Your task to perform on an android device: toggle sleep mode Image 0: 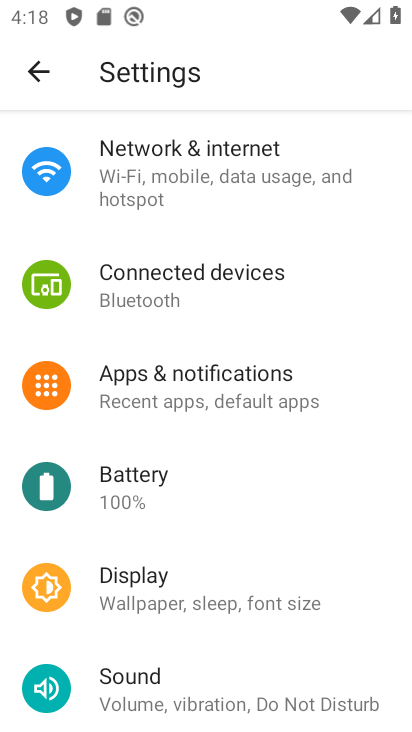
Step 0: drag from (194, 216) to (187, 688)
Your task to perform on an android device: toggle sleep mode Image 1: 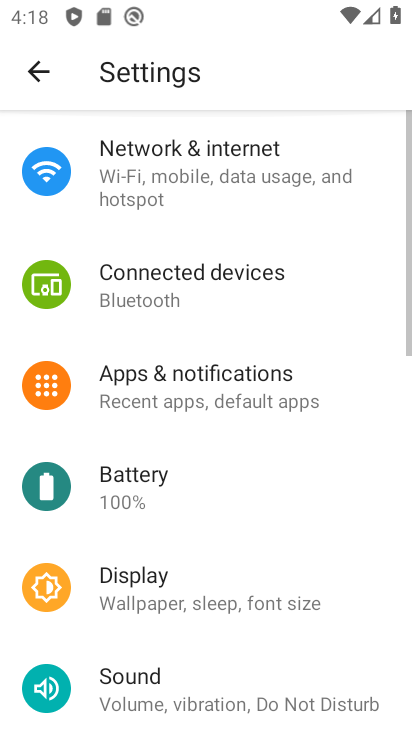
Step 1: task complete